Your task to perform on an android device: show emergency info Image 0: 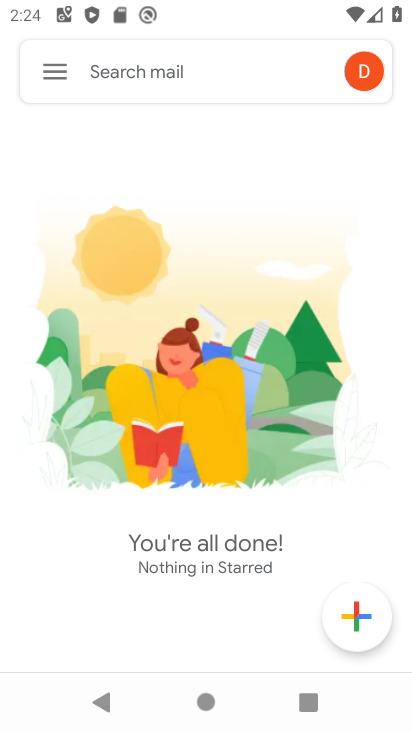
Step 0: press home button
Your task to perform on an android device: show emergency info Image 1: 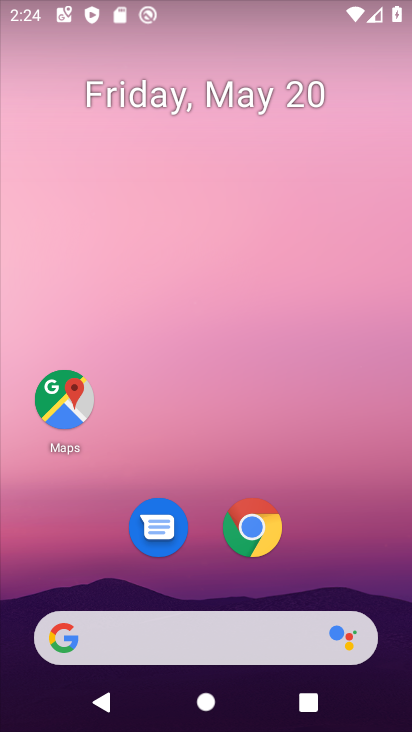
Step 1: drag from (257, 623) to (334, 102)
Your task to perform on an android device: show emergency info Image 2: 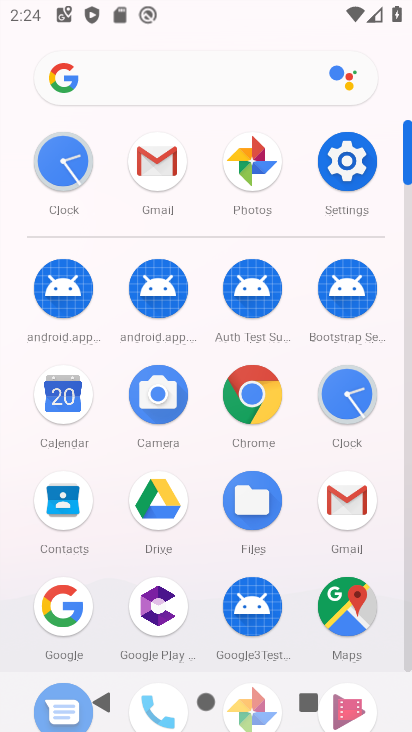
Step 2: click (361, 160)
Your task to perform on an android device: show emergency info Image 3: 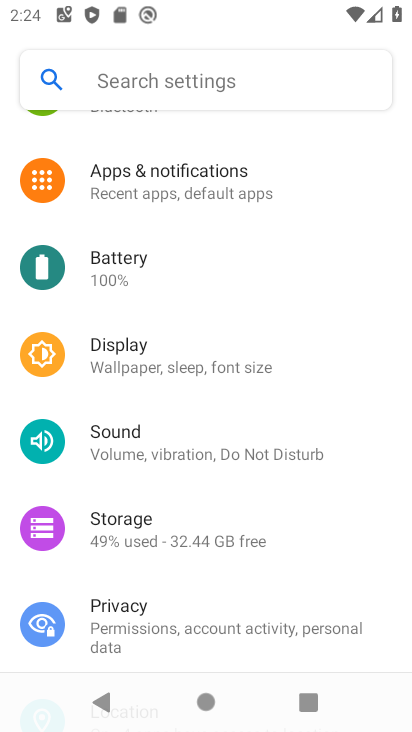
Step 3: drag from (213, 485) to (204, 45)
Your task to perform on an android device: show emergency info Image 4: 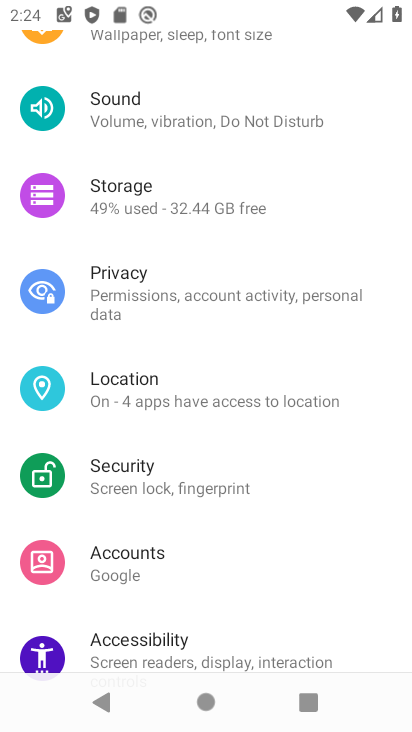
Step 4: drag from (292, 625) to (261, 99)
Your task to perform on an android device: show emergency info Image 5: 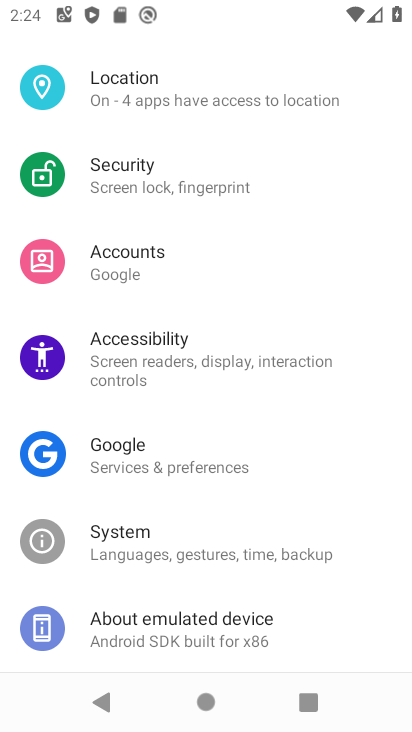
Step 5: drag from (257, 589) to (308, 105)
Your task to perform on an android device: show emergency info Image 6: 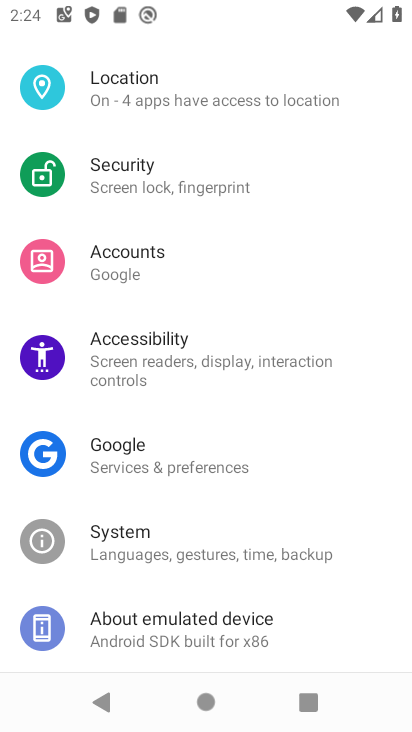
Step 6: click (251, 641)
Your task to perform on an android device: show emergency info Image 7: 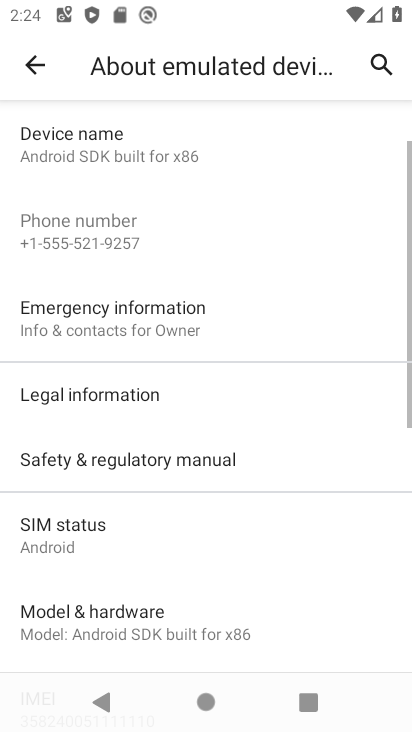
Step 7: click (208, 307)
Your task to perform on an android device: show emergency info Image 8: 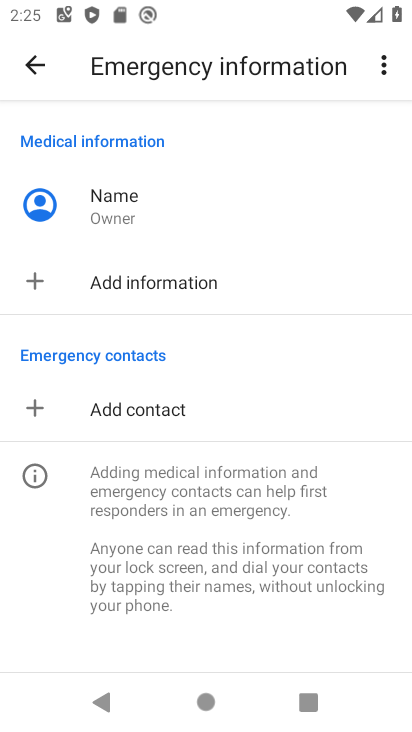
Step 8: task complete